Your task to perform on an android device: turn on sleep mode Image 0: 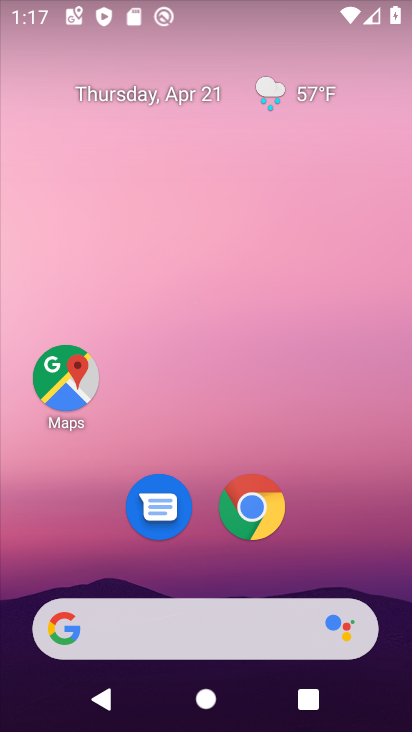
Step 0: drag from (353, 515) to (280, 14)
Your task to perform on an android device: turn on sleep mode Image 1: 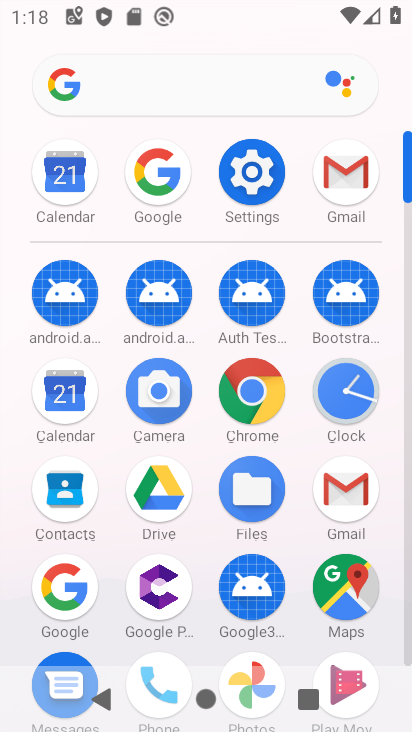
Step 1: click (250, 169)
Your task to perform on an android device: turn on sleep mode Image 2: 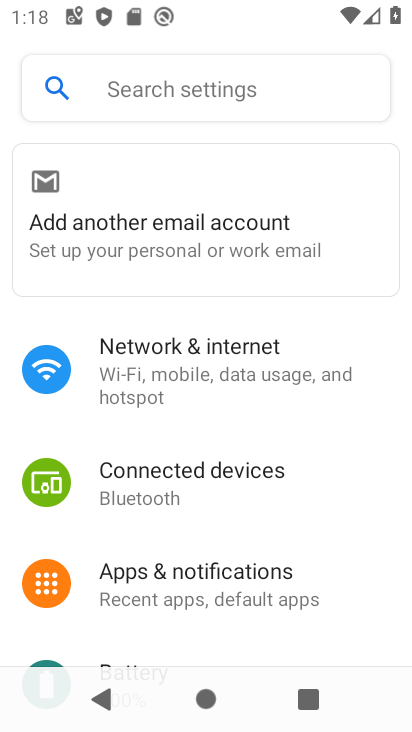
Step 2: drag from (169, 535) to (220, 355)
Your task to perform on an android device: turn on sleep mode Image 3: 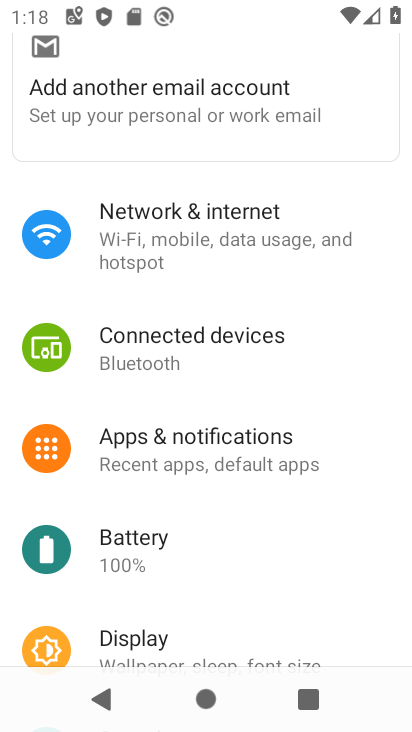
Step 3: drag from (189, 531) to (197, 392)
Your task to perform on an android device: turn on sleep mode Image 4: 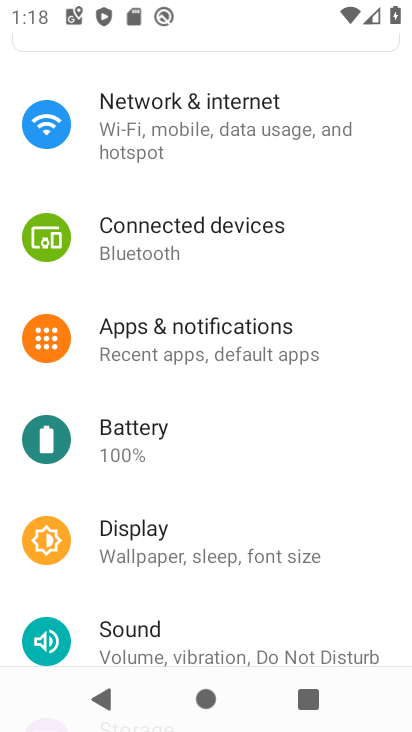
Step 4: drag from (217, 527) to (257, 423)
Your task to perform on an android device: turn on sleep mode Image 5: 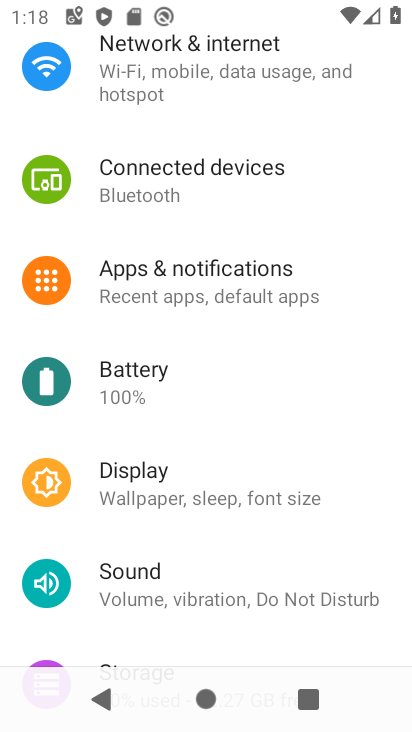
Step 5: click (205, 493)
Your task to perform on an android device: turn on sleep mode Image 6: 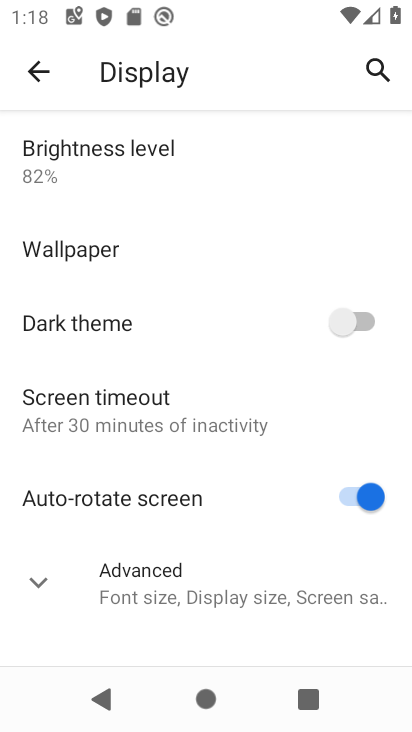
Step 6: click (206, 422)
Your task to perform on an android device: turn on sleep mode Image 7: 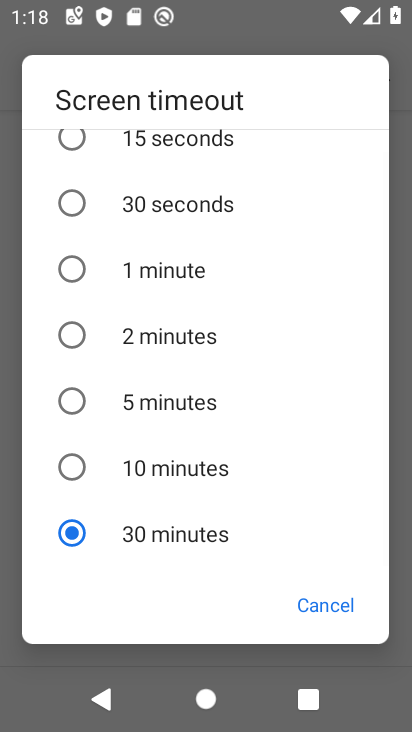
Step 7: drag from (262, 232) to (259, 488)
Your task to perform on an android device: turn on sleep mode Image 8: 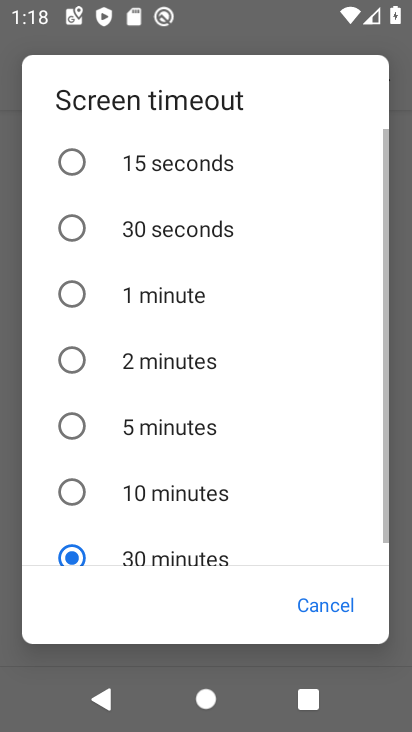
Step 8: drag from (198, 477) to (266, 240)
Your task to perform on an android device: turn on sleep mode Image 9: 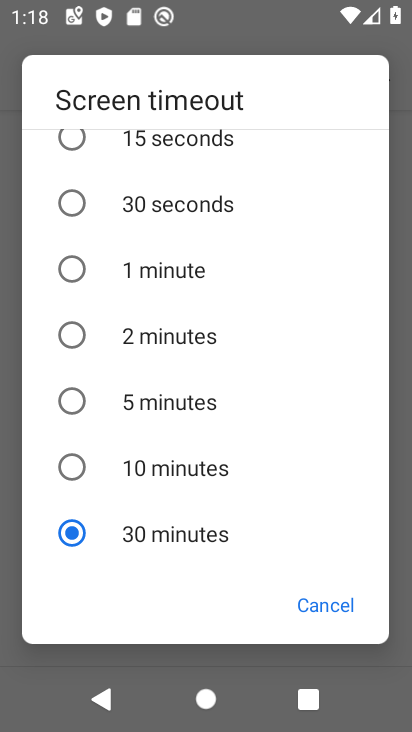
Step 9: click (317, 608)
Your task to perform on an android device: turn on sleep mode Image 10: 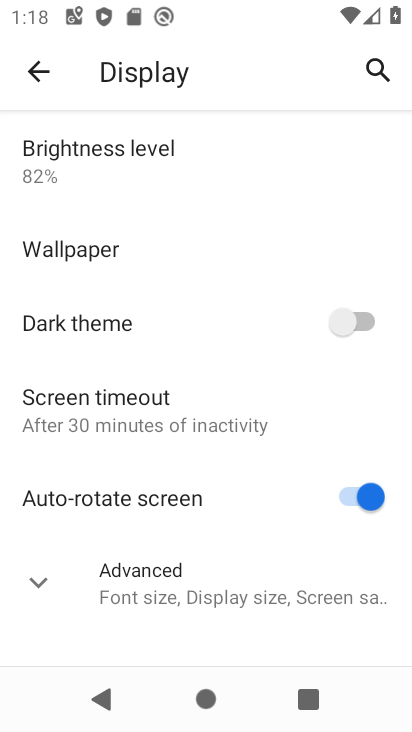
Step 10: click (199, 607)
Your task to perform on an android device: turn on sleep mode Image 11: 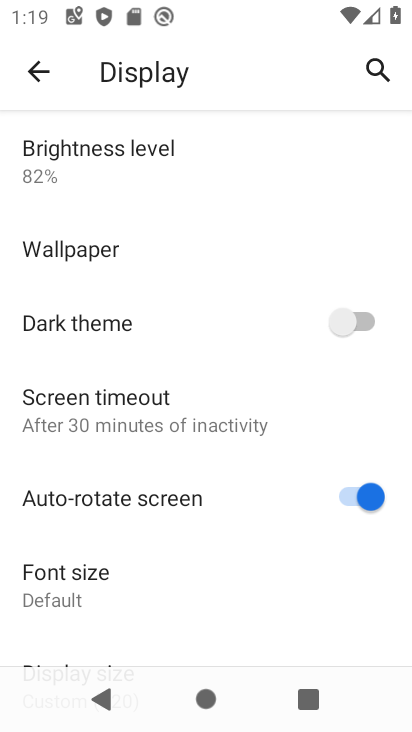
Step 11: task complete